Your task to perform on an android device: What is the news today? Image 0: 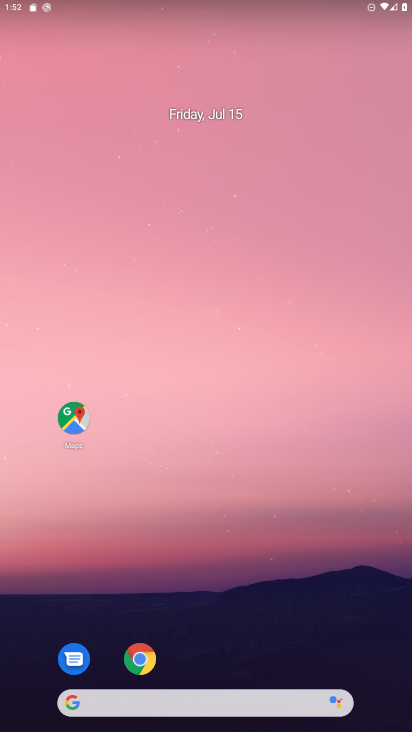
Step 0: drag from (164, 682) to (234, 216)
Your task to perform on an android device: What is the news today? Image 1: 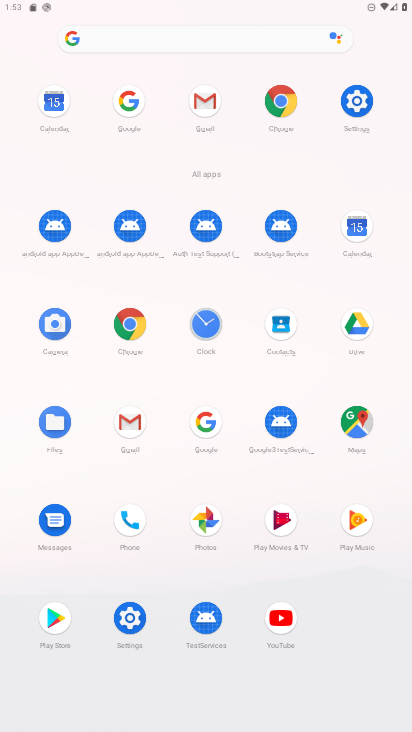
Step 1: click (140, 97)
Your task to perform on an android device: What is the news today? Image 2: 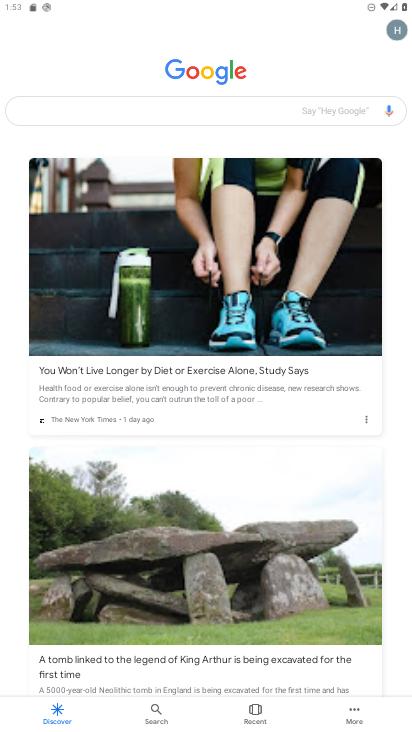
Step 2: click (37, 116)
Your task to perform on an android device: What is the news today? Image 3: 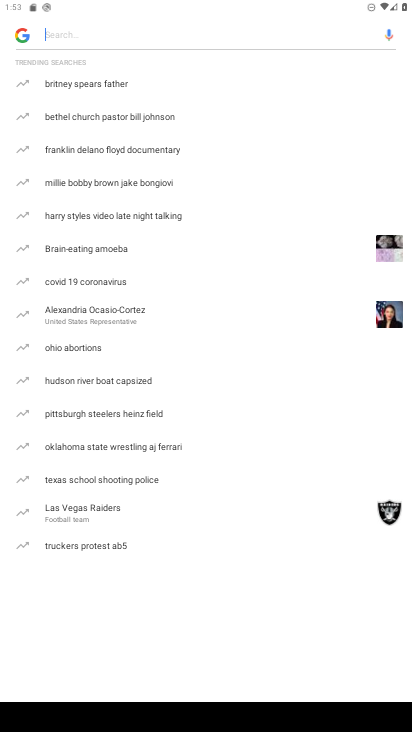
Step 3: type "news"
Your task to perform on an android device: What is the news today? Image 4: 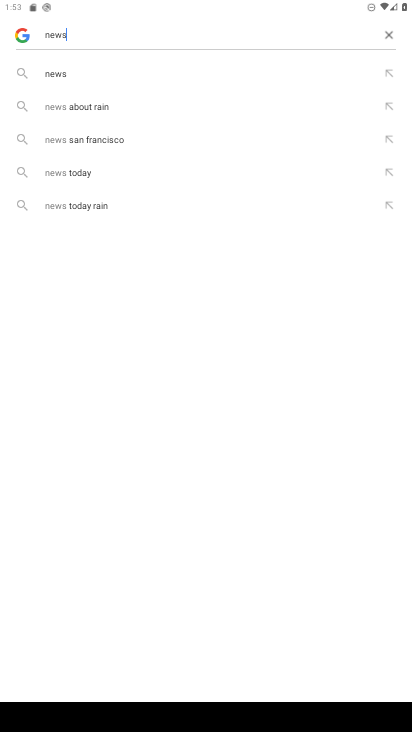
Step 4: click (61, 67)
Your task to perform on an android device: What is the news today? Image 5: 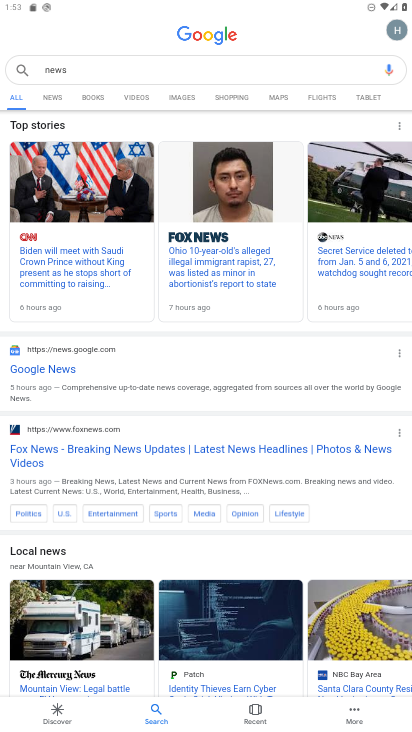
Step 5: task complete